Your task to perform on an android device: Go to Yahoo.com Image 0: 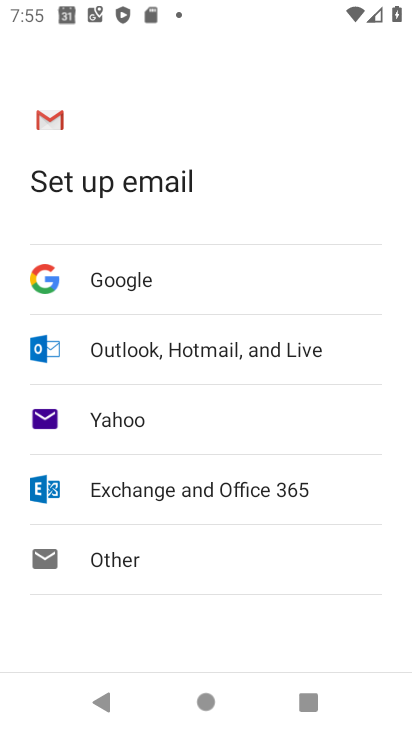
Step 0: press home button
Your task to perform on an android device: Go to Yahoo.com Image 1: 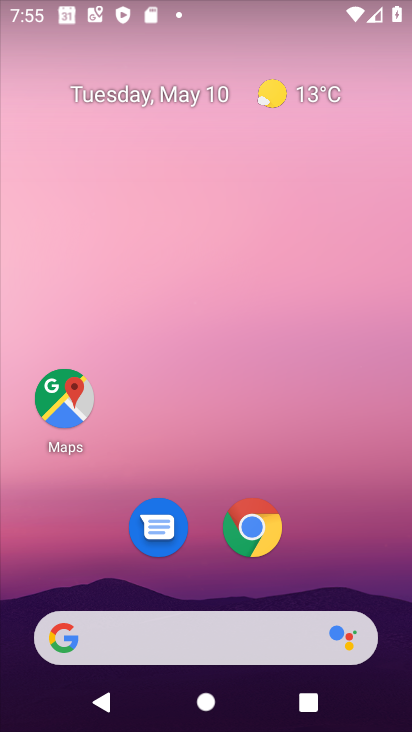
Step 1: click (249, 526)
Your task to perform on an android device: Go to Yahoo.com Image 2: 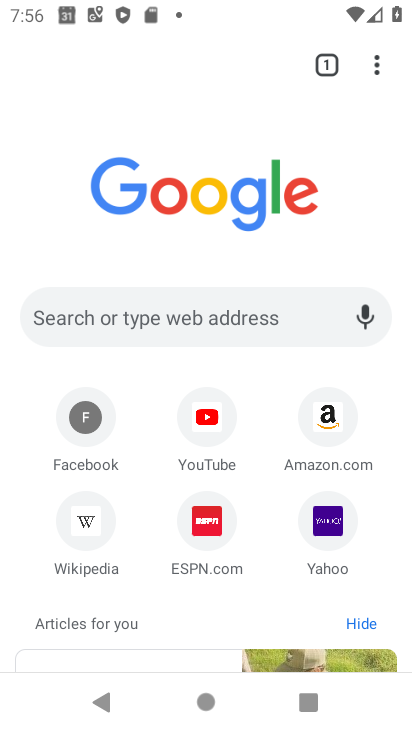
Step 2: click (324, 533)
Your task to perform on an android device: Go to Yahoo.com Image 3: 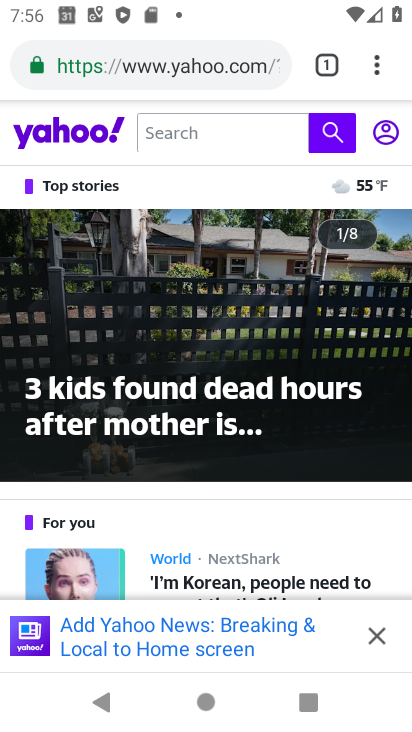
Step 3: task complete